Your task to perform on an android device: change keyboard looks Image 0: 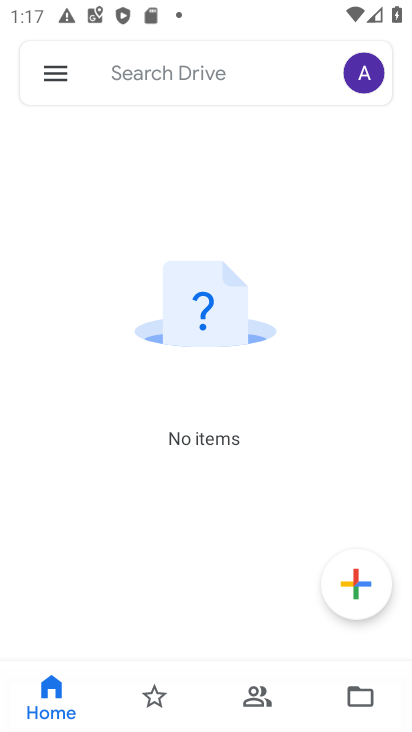
Step 0: press home button
Your task to perform on an android device: change keyboard looks Image 1: 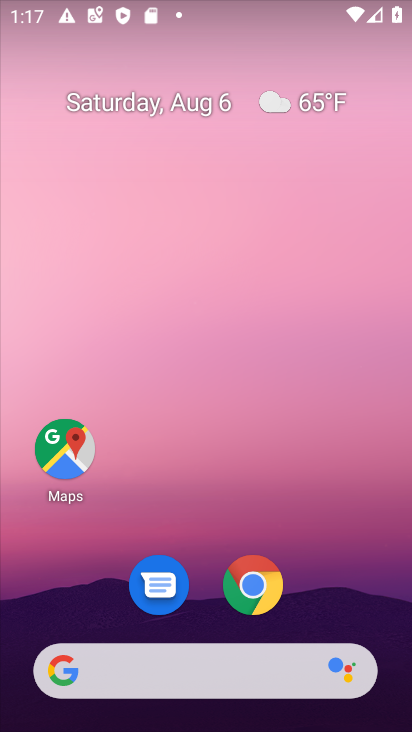
Step 1: drag from (201, 499) to (252, 0)
Your task to perform on an android device: change keyboard looks Image 2: 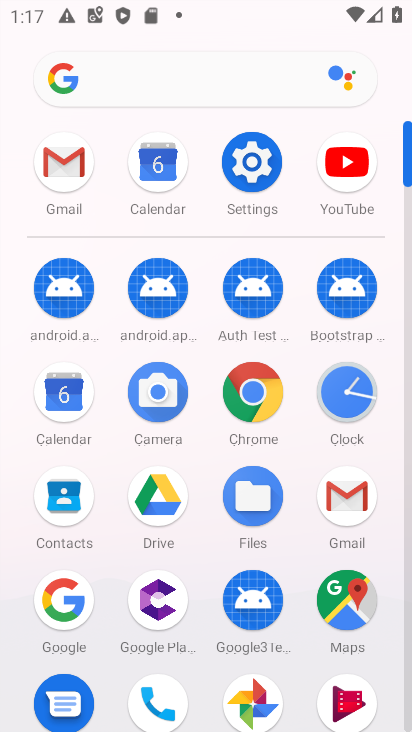
Step 2: click (245, 161)
Your task to perform on an android device: change keyboard looks Image 3: 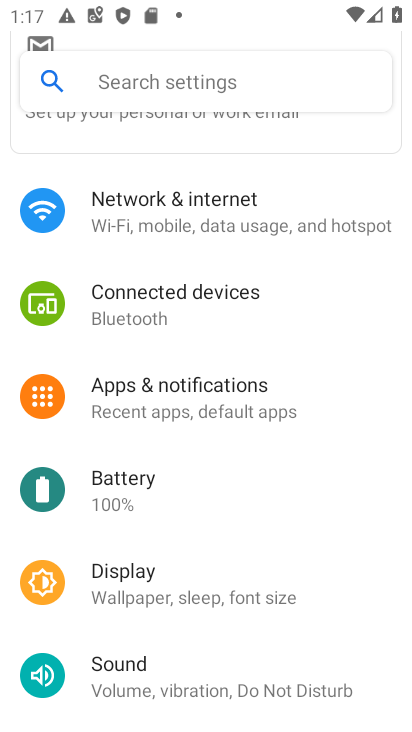
Step 3: drag from (221, 626) to (300, 0)
Your task to perform on an android device: change keyboard looks Image 4: 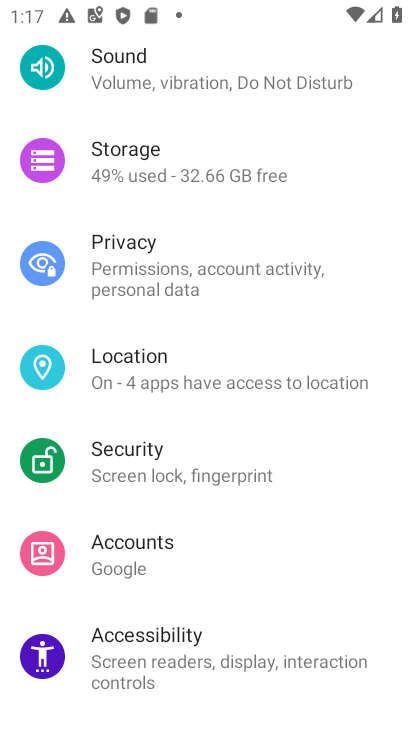
Step 4: drag from (316, 437) to (357, 146)
Your task to perform on an android device: change keyboard looks Image 5: 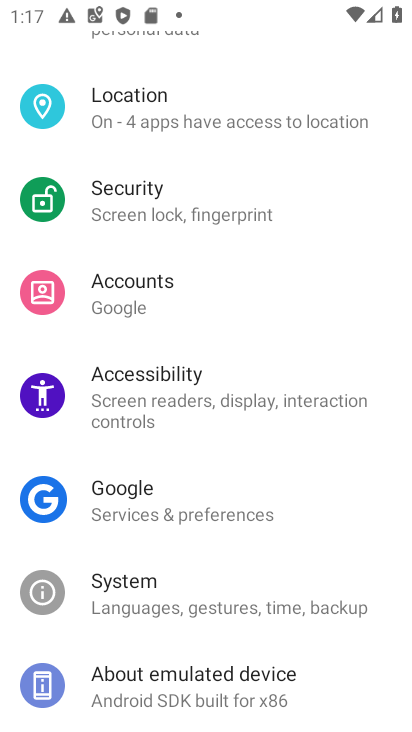
Step 5: click (175, 592)
Your task to perform on an android device: change keyboard looks Image 6: 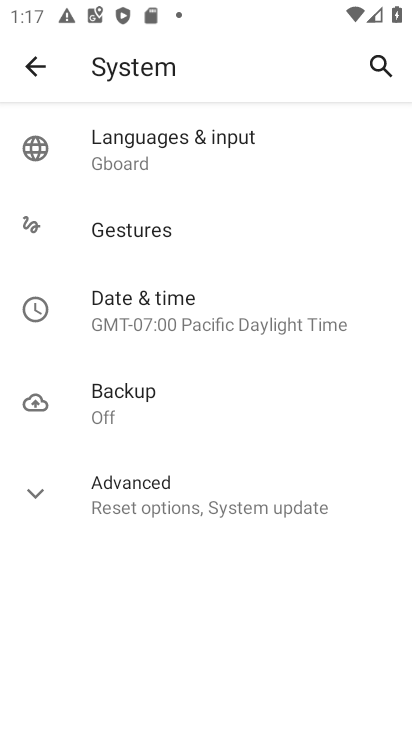
Step 6: click (135, 157)
Your task to perform on an android device: change keyboard looks Image 7: 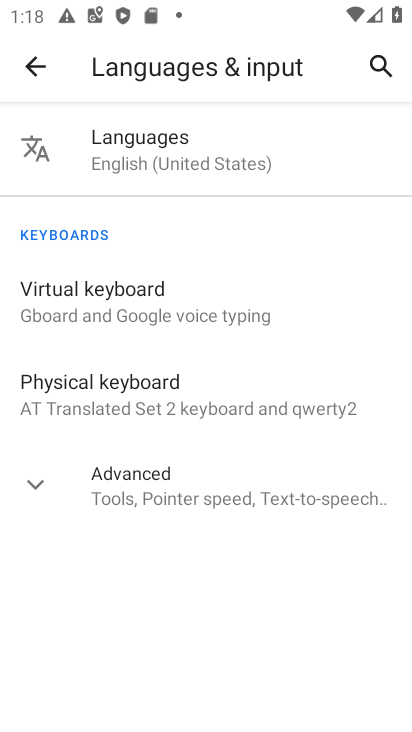
Step 7: click (149, 297)
Your task to perform on an android device: change keyboard looks Image 8: 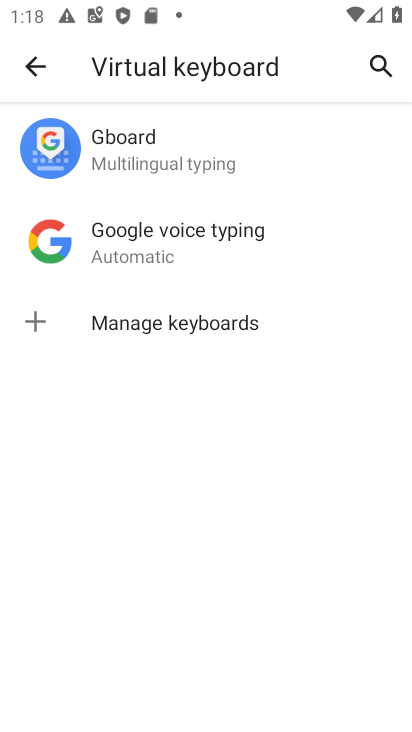
Step 8: click (178, 167)
Your task to perform on an android device: change keyboard looks Image 9: 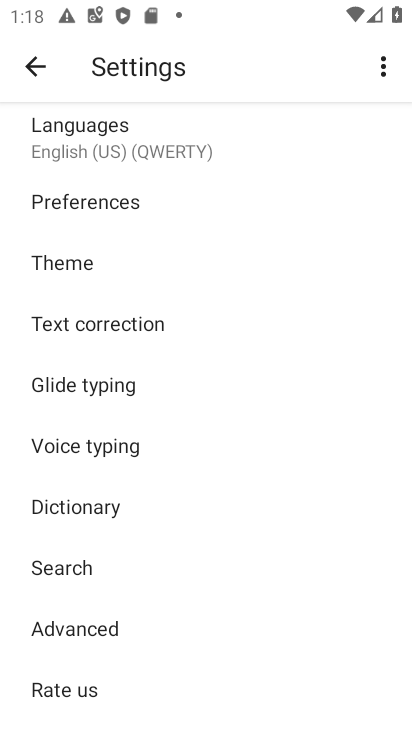
Step 9: click (99, 255)
Your task to perform on an android device: change keyboard looks Image 10: 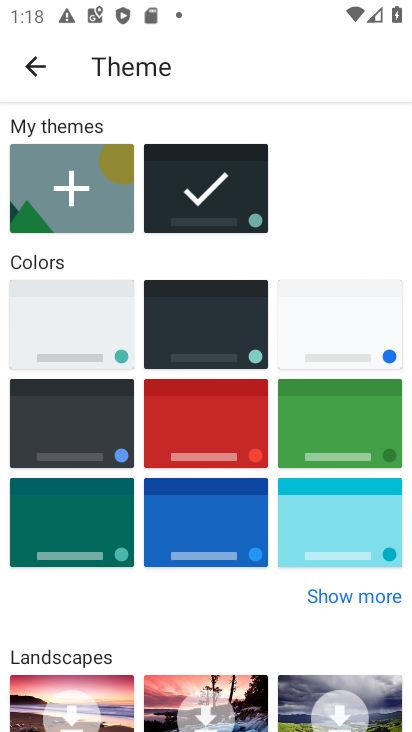
Step 10: click (198, 424)
Your task to perform on an android device: change keyboard looks Image 11: 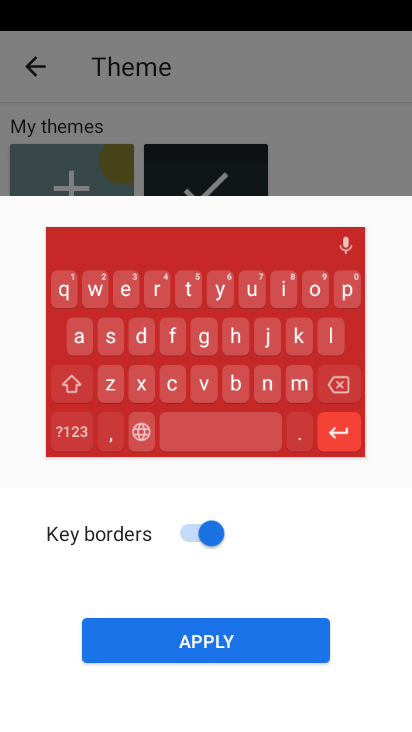
Step 11: click (225, 628)
Your task to perform on an android device: change keyboard looks Image 12: 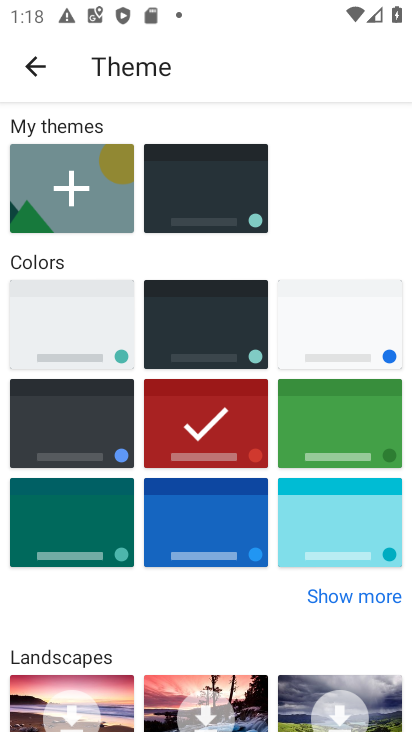
Step 12: task complete